Your task to perform on an android device: turn off javascript in the chrome app Image 0: 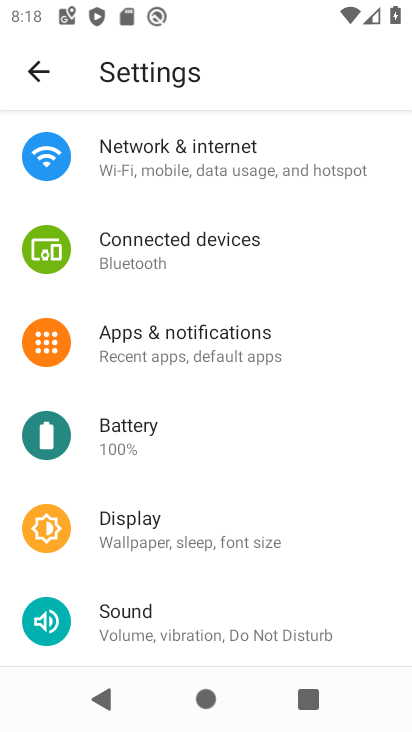
Step 0: press home button
Your task to perform on an android device: turn off javascript in the chrome app Image 1: 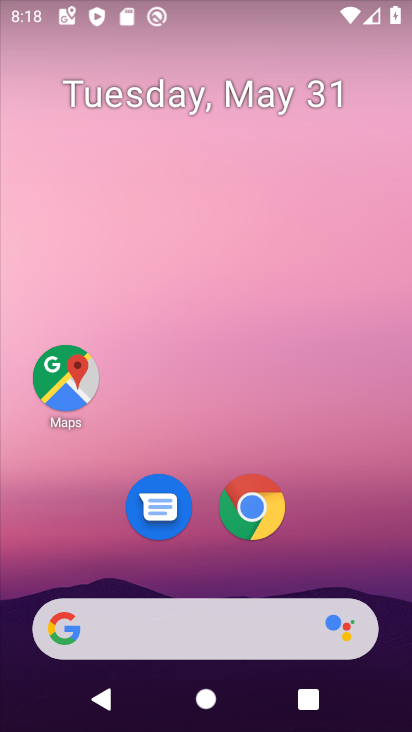
Step 1: click (250, 502)
Your task to perform on an android device: turn off javascript in the chrome app Image 2: 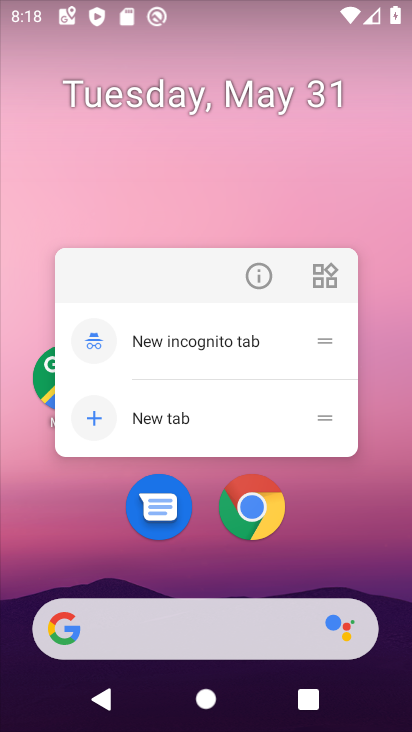
Step 2: click (259, 504)
Your task to perform on an android device: turn off javascript in the chrome app Image 3: 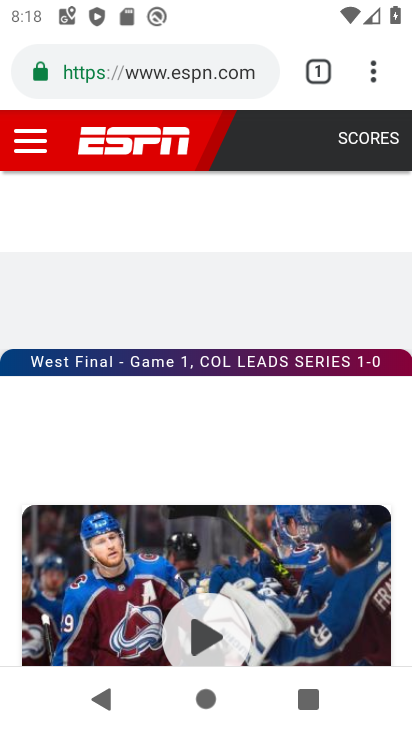
Step 3: click (379, 66)
Your task to perform on an android device: turn off javascript in the chrome app Image 4: 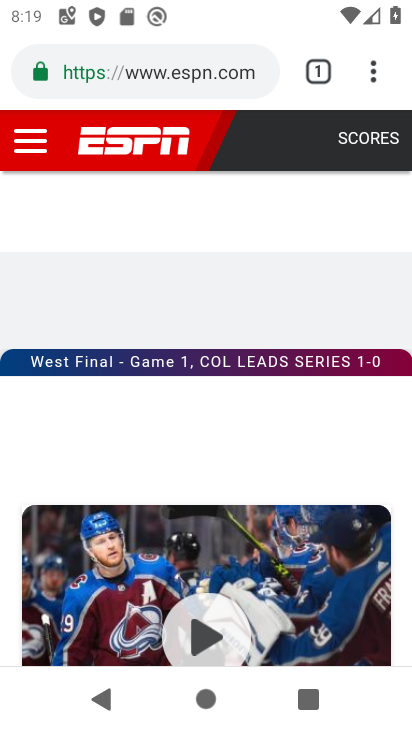
Step 4: drag from (379, 61) to (169, 494)
Your task to perform on an android device: turn off javascript in the chrome app Image 5: 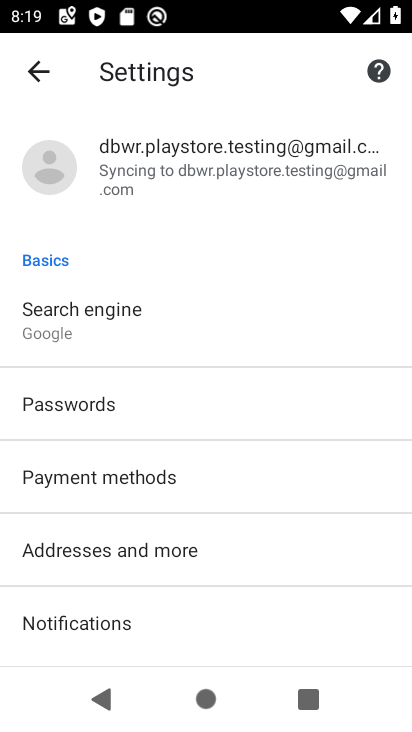
Step 5: drag from (264, 524) to (284, 60)
Your task to perform on an android device: turn off javascript in the chrome app Image 6: 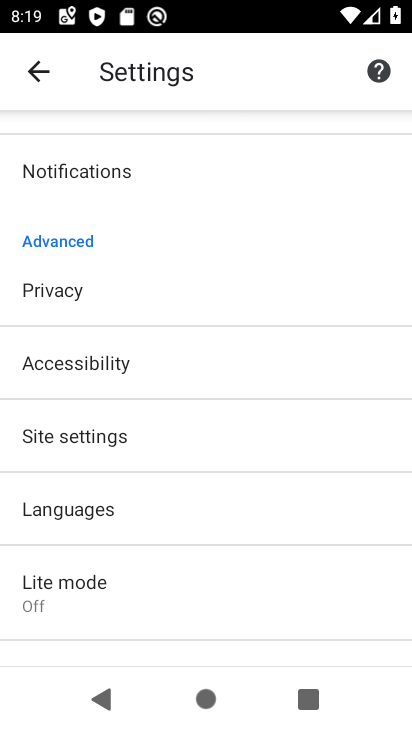
Step 6: click (135, 443)
Your task to perform on an android device: turn off javascript in the chrome app Image 7: 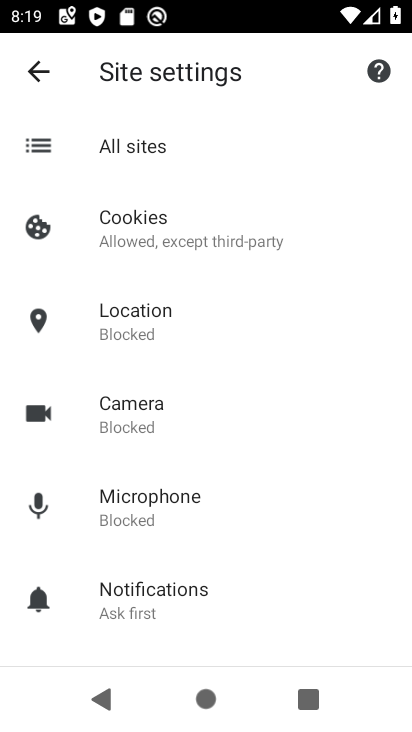
Step 7: drag from (223, 447) to (267, 189)
Your task to perform on an android device: turn off javascript in the chrome app Image 8: 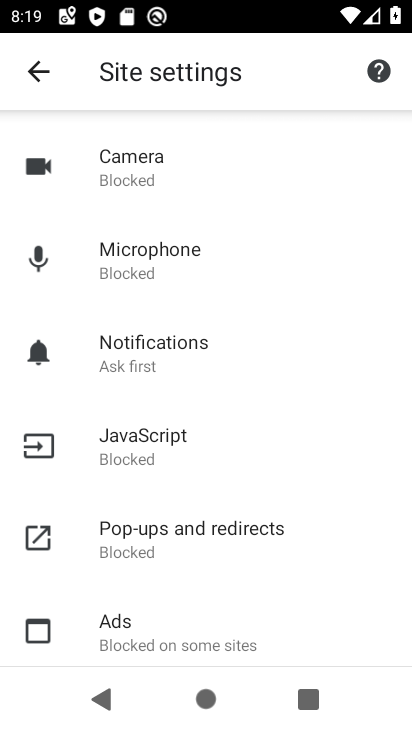
Step 8: click (151, 456)
Your task to perform on an android device: turn off javascript in the chrome app Image 9: 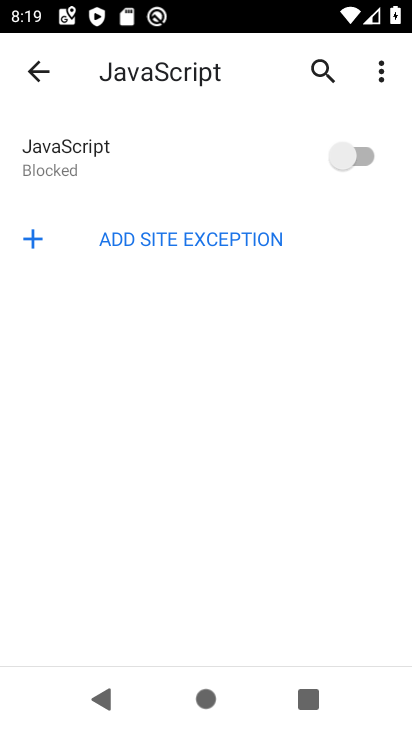
Step 9: task complete